Your task to perform on an android device: Open network settings Image 0: 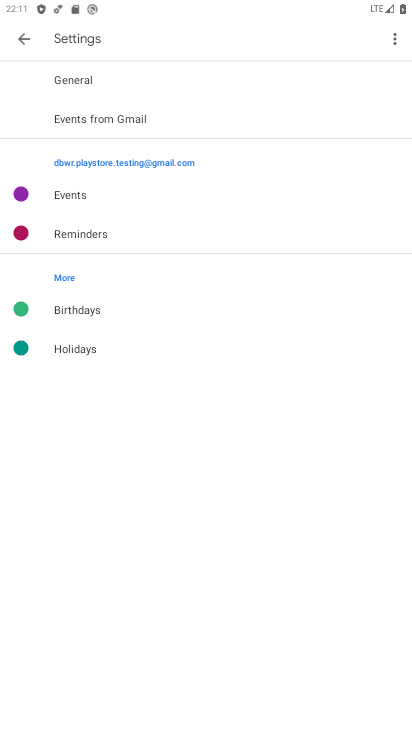
Step 0: press home button
Your task to perform on an android device: Open network settings Image 1: 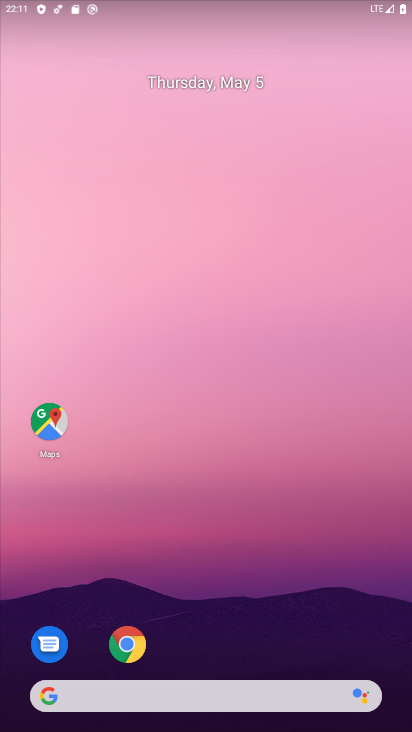
Step 1: drag from (222, 658) to (132, 107)
Your task to perform on an android device: Open network settings Image 2: 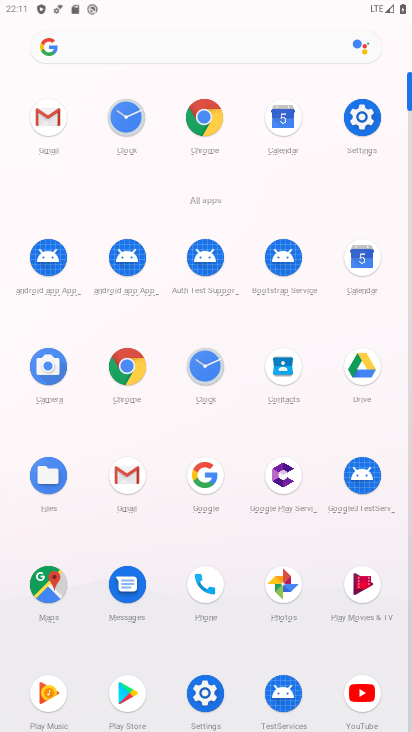
Step 2: click (359, 125)
Your task to perform on an android device: Open network settings Image 3: 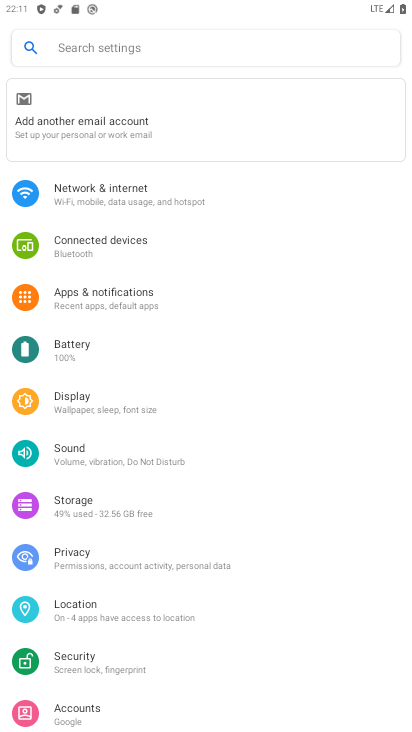
Step 3: click (96, 175)
Your task to perform on an android device: Open network settings Image 4: 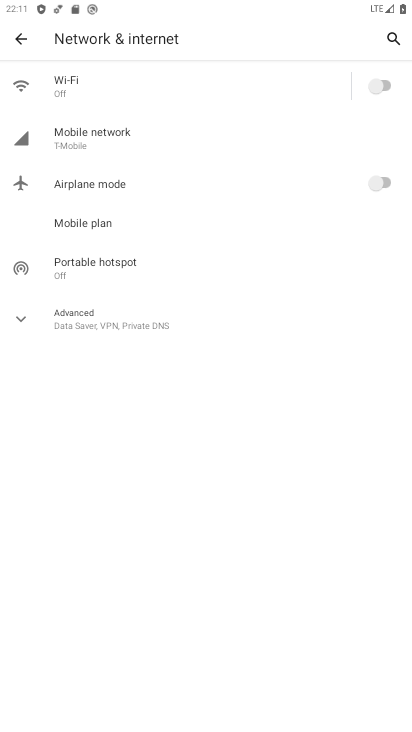
Step 4: click (71, 124)
Your task to perform on an android device: Open network settings Image 5: 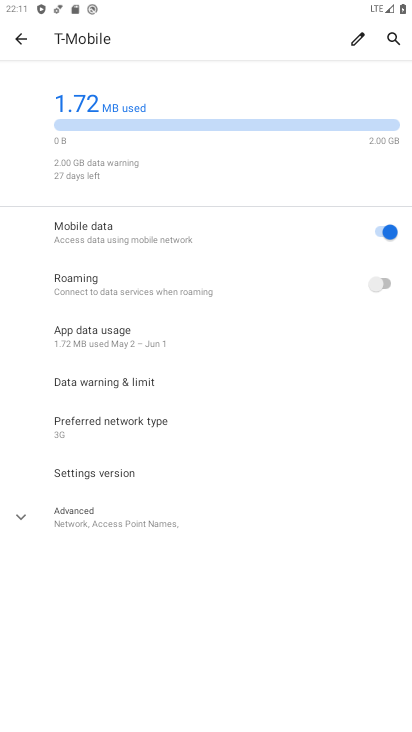
Step 5: click (81, 533)
Your task to perform on an android device: Open network settings Image 6: 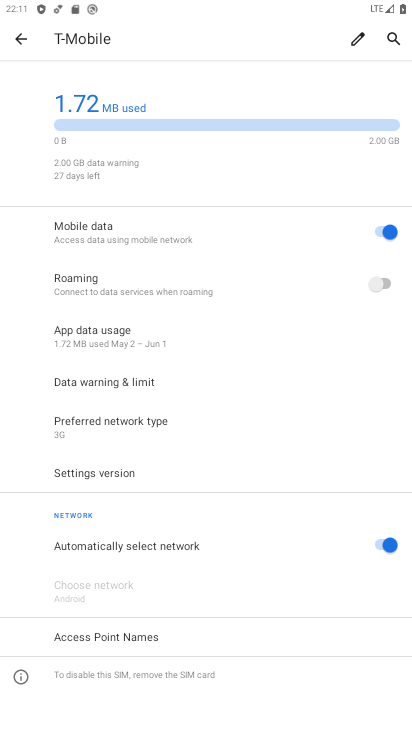
Step 6: task complete